Your task to perform on an android device: move an email to a new category in the gmail app Image 0: 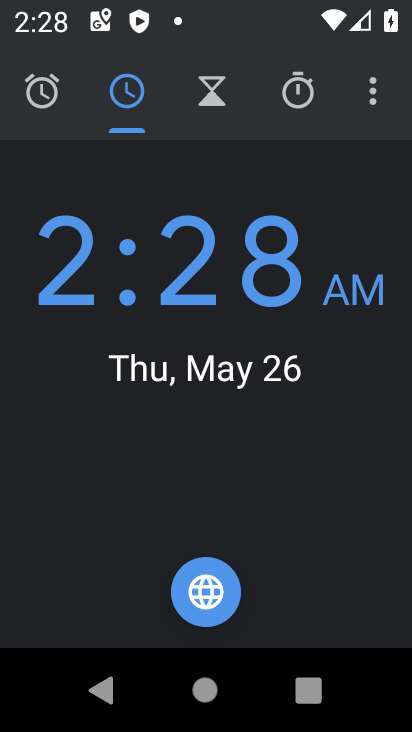
Step 0: press home button
Your task to perform on an android device: move an email to a new category in the gmail app Image 1: 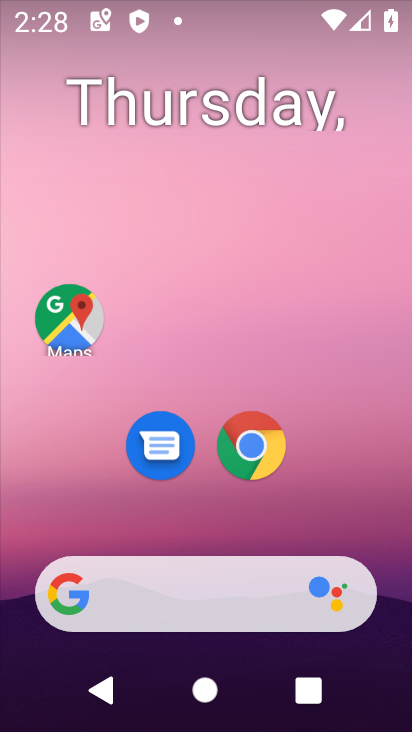
Step 1: drag from (22, 589) to (216, 162)
Your task to perform on an android device: move an email to a new category in the gmail app Image 2: 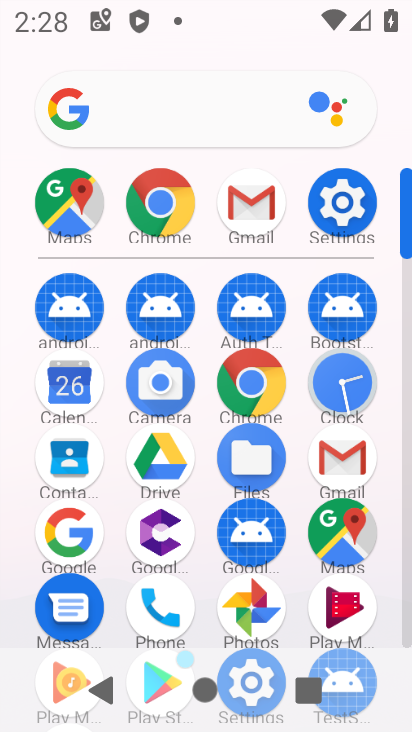
Step 2: click (252, 204)
Your task to perform on an android device: move an email to a new category in the gmail app Image 3: 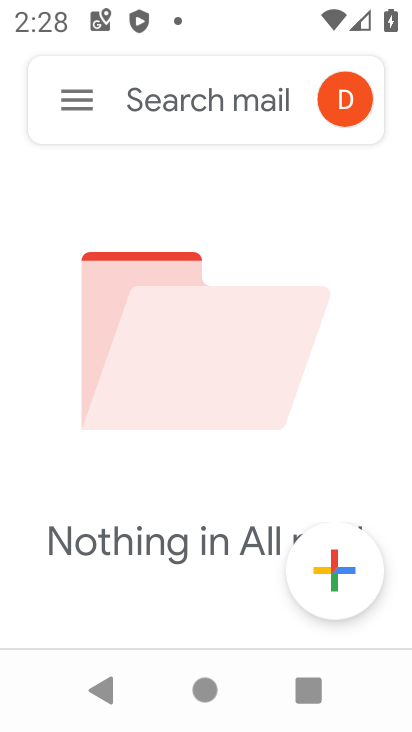
Step 3: click (61, 94)
Your task to perform on an android device: move an email to a new category in the gmail app Image 4: 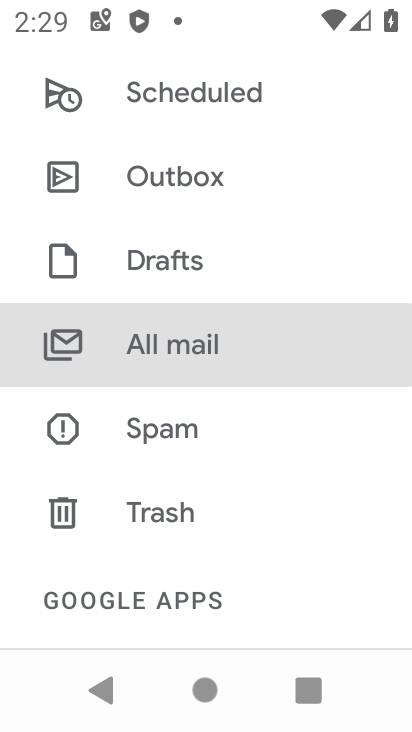
Step 4: click (116, 367)
Your task to perform on an android device: move an email to a new category in the gmail app Image 5: 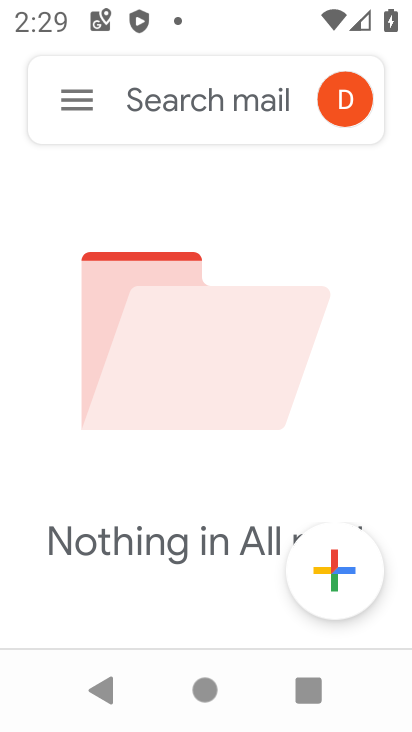
Step 5: task complete